Your task to perform on an android device: Set the phone to "Do not disturb". Image 0: 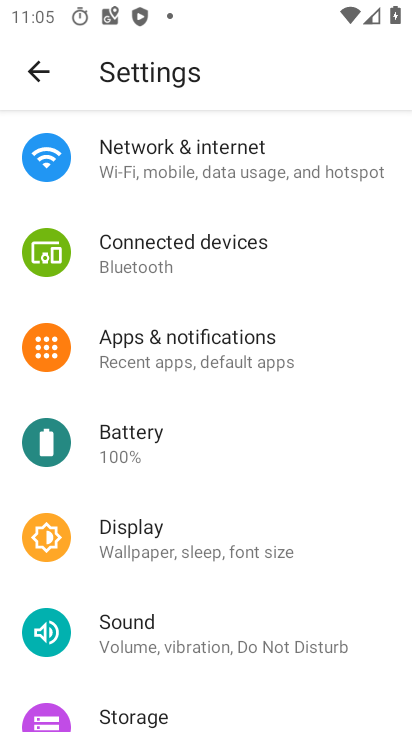
Step 0: click (107, 647)
Your task to perform on an android device: Set the phone to "Do not disturb". Image 1: 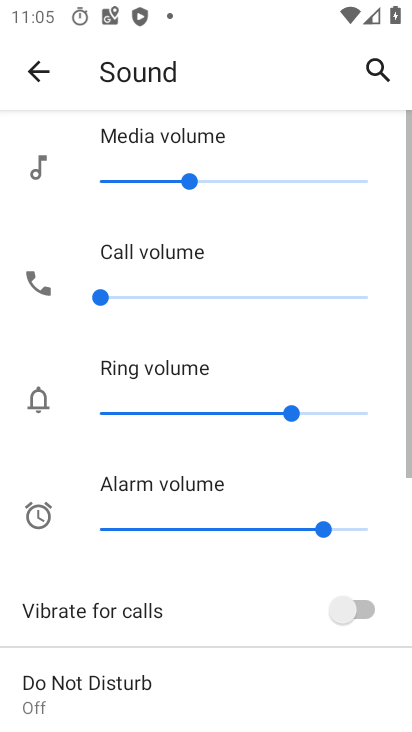
Step 1: drag from (192, 638) to (201, 424)
Your task to perform on an android device: Set the phone to "Do not disturb". Image 2: 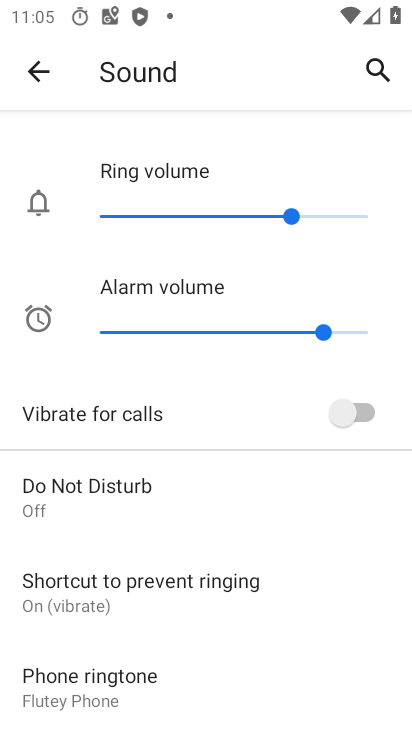
Step 2: click (77, 492)
Your task to perform on an android device: Set the phone to "Do not disturb". Image 3: 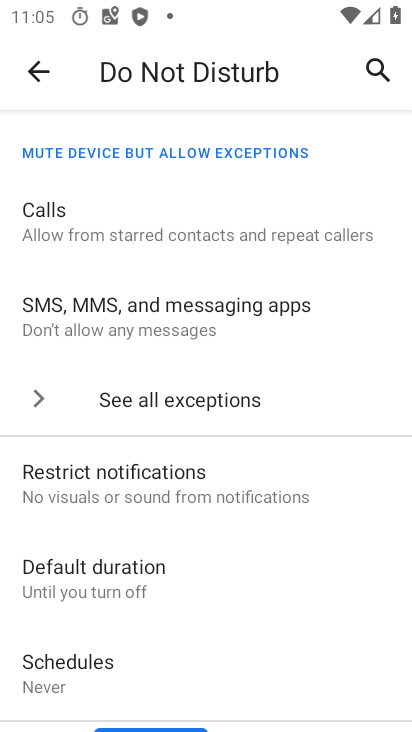
Step 3: drag from (215, 455) to (194, 243)
Your task to perform on an android device: Set the phone to "Do not disturb". Image 4: 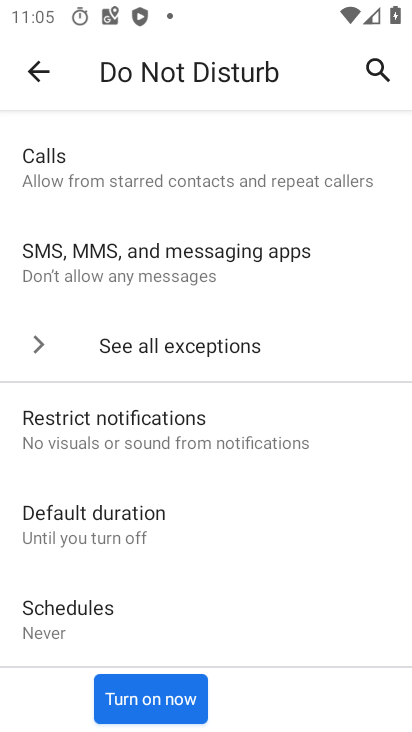
Step 4: click (149, 700)
Your task to perform on an android device: Set the phone to "Do not disturb". Image 5: 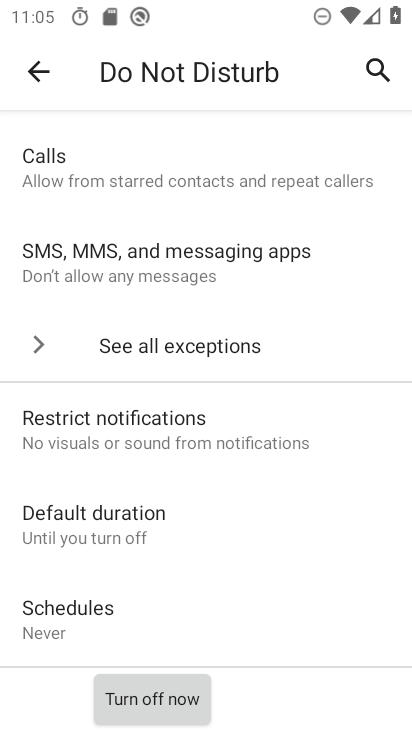
Step 5: task complete